Your task to perform on an android device: turn off location Image 0: 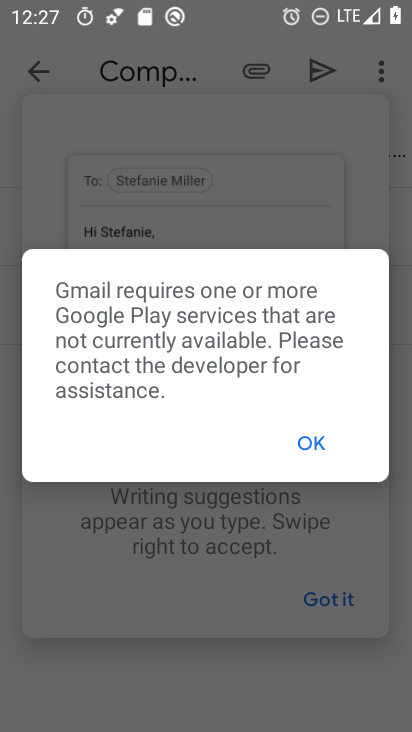
Step 0: press home button
Your task to perform on an android device: turn off location Image 1: 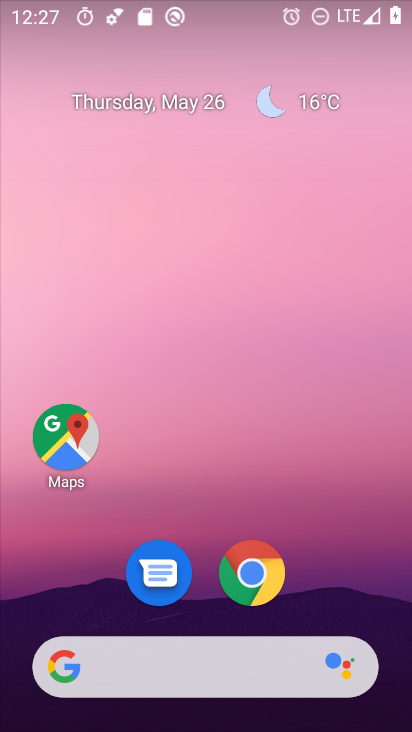
Step 1: drag from (328, 621) to (319, 23)
Your task to perform on an android device: turn off location Image 2: 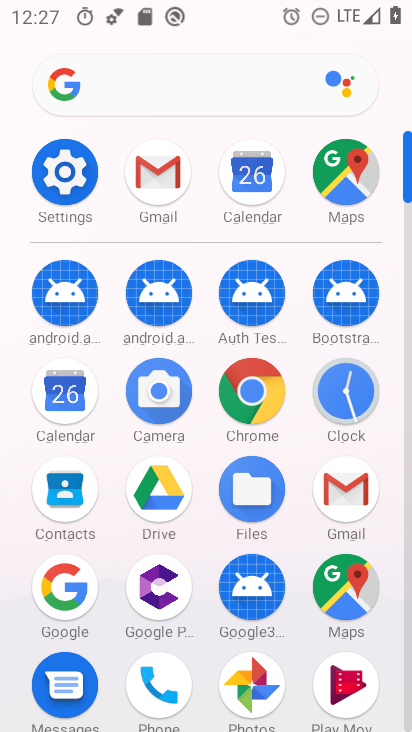
Step 2: click (63, 173)
Your task to perform on an android device: turn off location Image 3: 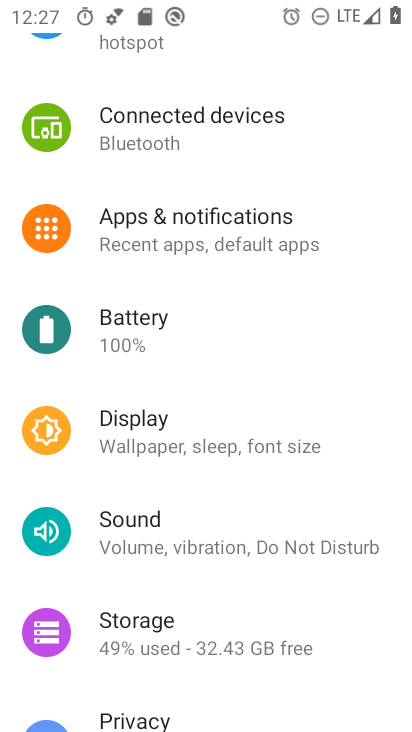
Step 3: drag from (244, 591) to (256, 283)
Your task to perform on an android device: turn off location Image 4: 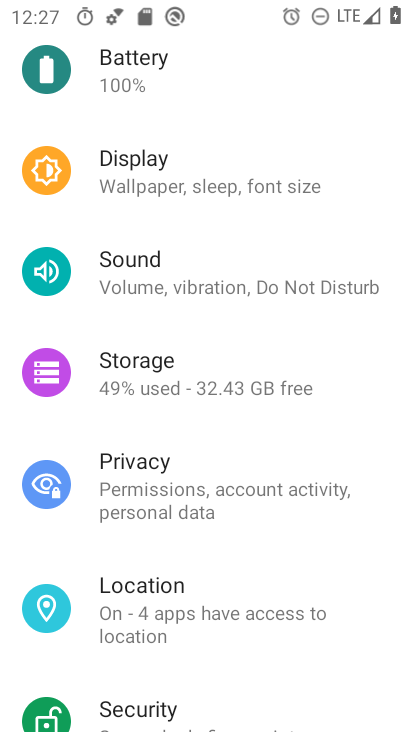
Step 4: click (152, 592)
Your task to perform on an android device: turn off location Image 5: 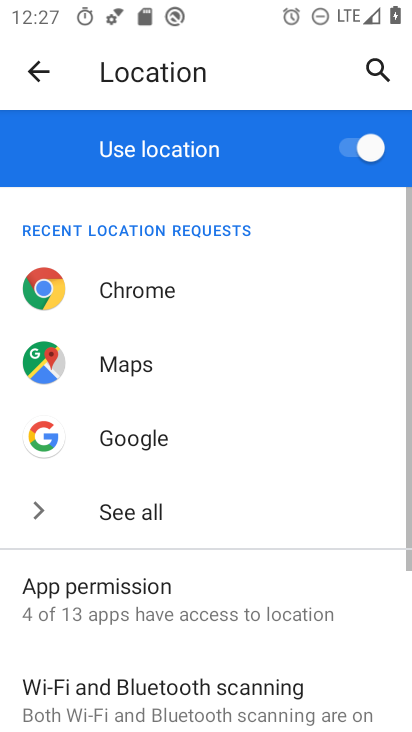
Step 5: click (358, 152)
Your task to perform on an android device: turn off location Image 6: 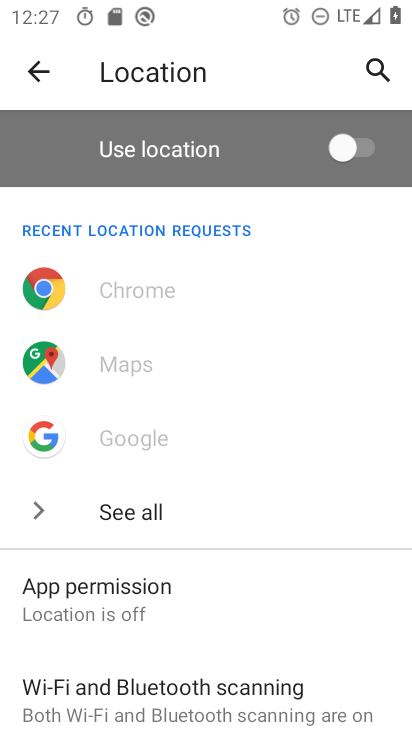
Step 6: task complete